Your task to perform on an android device: What's on my calendar tomorrow? Image 0: 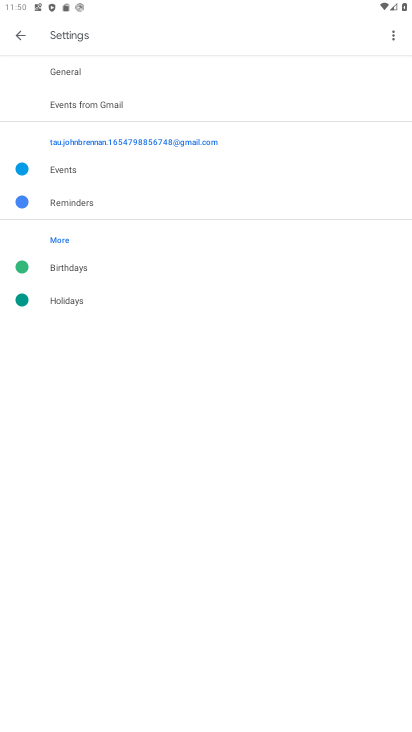
Step 0: press home button
Your task to perform on an android device: What's on my calendar tomorrow? Image 1: 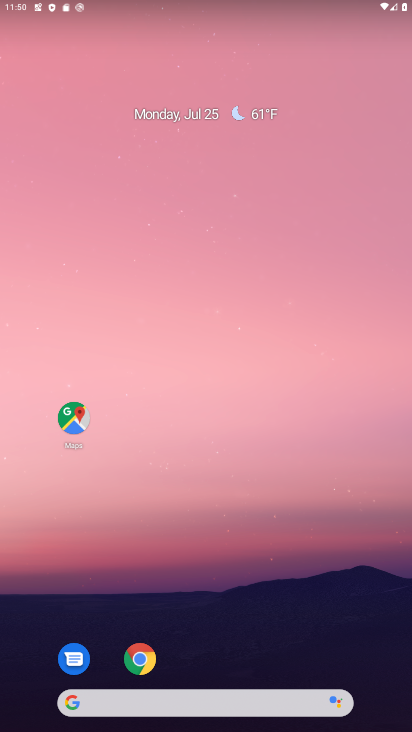
Step 1: drag from (217, 725) to (213, 280)
Your task to perform on an android device: What's on my calendar tomorrow? Image 2: 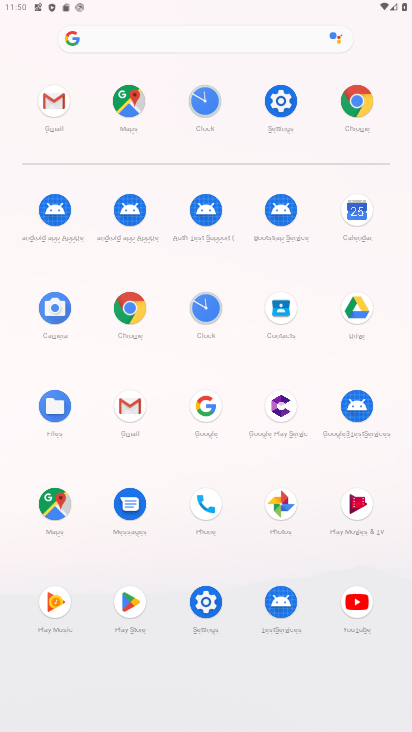
Step 2: click (360, 208)
Your task to perform on an android device: What's on my calendar tomorrow? Image 3: 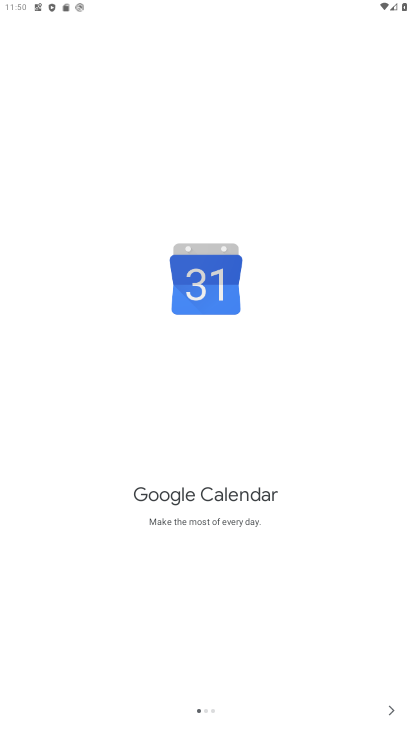
Step 3: click (390, 709)
Your task to perform on an android device: What's on my calendar tomorrow? Image 4: 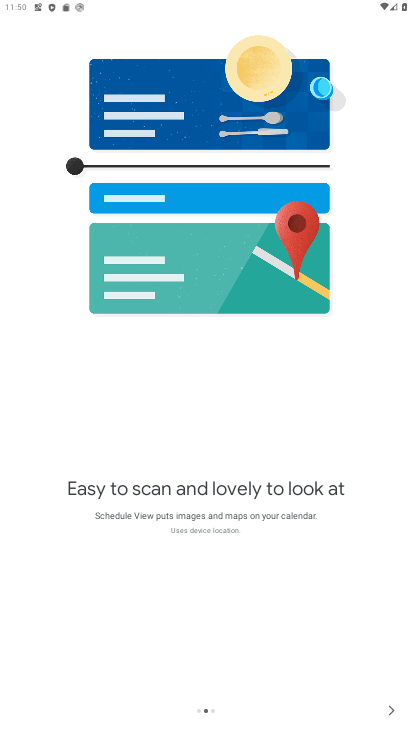
Step 4: click (392, 713)
Your task to perform on an android device: What's on my calendar tomorrow? Image 5: 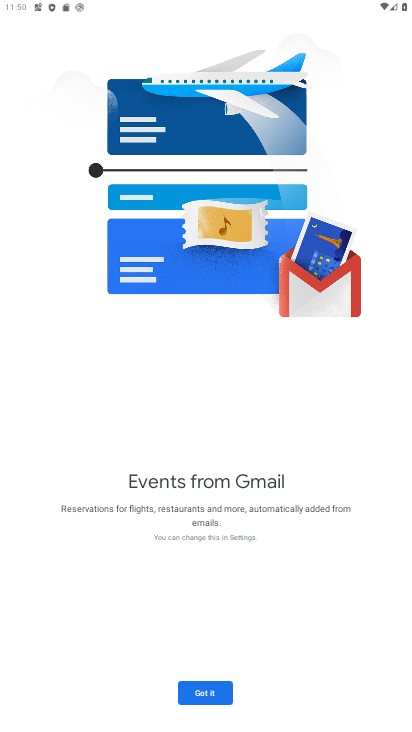
Step 5: click (209, 694)
Your task to perform on an android device: What's on my calendar tomorrow? Image 6: 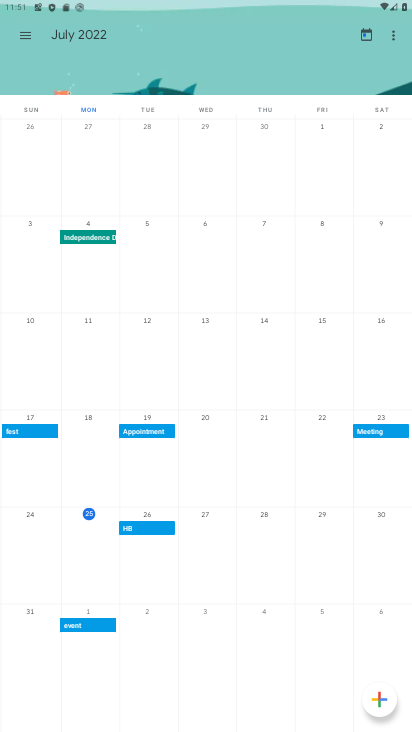
Step 6: click (146, 119)
Your task to perform on an android device: What's on my calendar tomorrow? Image 7: 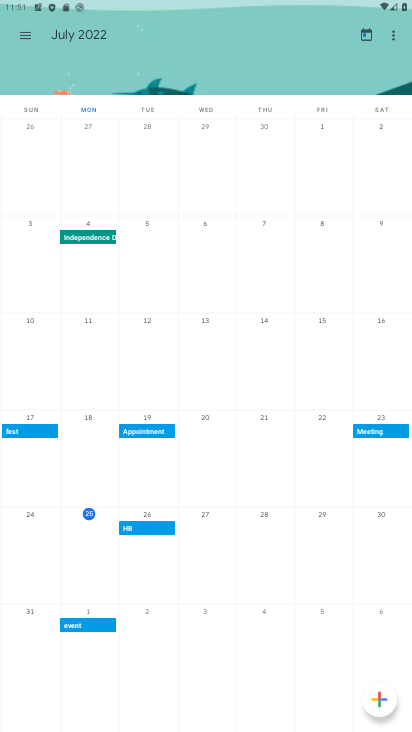
Step 7: click (147, 124)
Your task to perform on an android device: What's on my calendar tomorrow? Image 8: 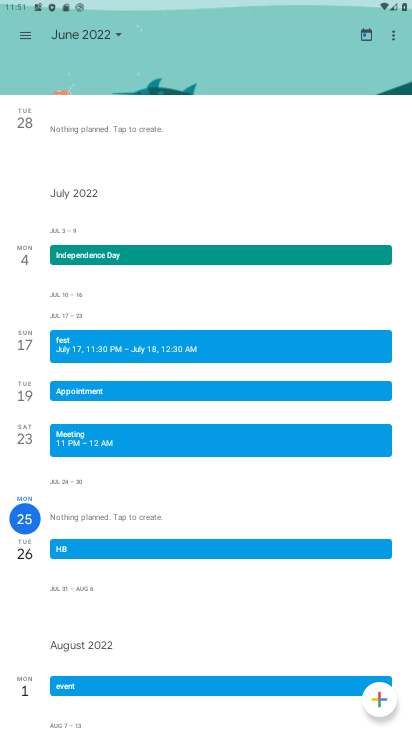
Step 8: task complete